Your task to perform on an android device: What is the recent news? Image 0: 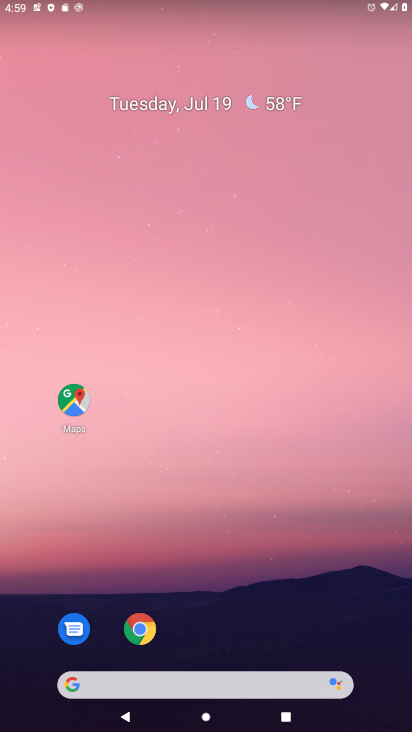
Step 0: drag from (226, 692) to (232, 266)
Your task to perform on an android device: What is the recent news? Image 1: 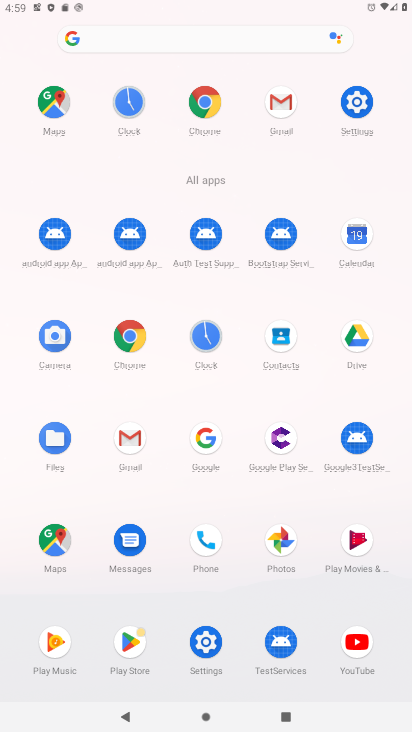
Step 1: click (124, 324)
Your task to perform on an android device: What is the recent news? Image 2: 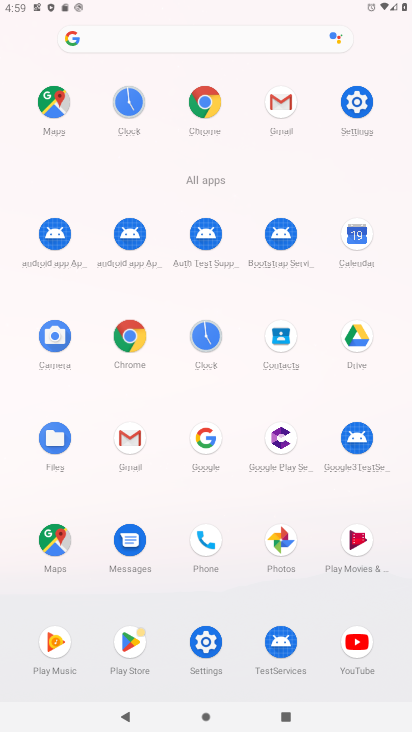
Step 2: click (125, 325)
Your task to perform on an android device: What is the recent news? Image 3: 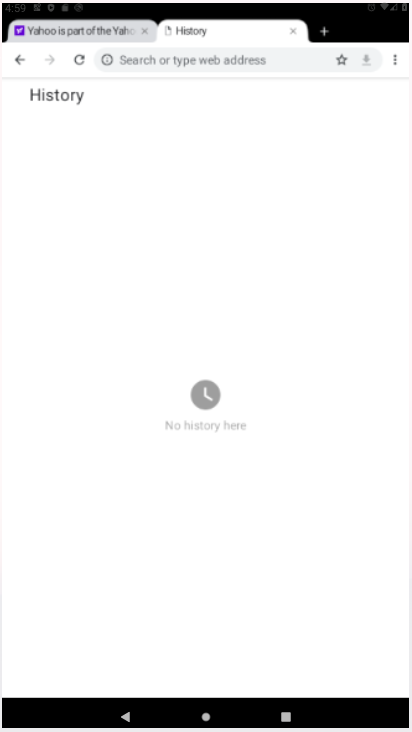
Step 3: click (128, 328)
Your task to perform on an android device: What is the recent news? Image 4: 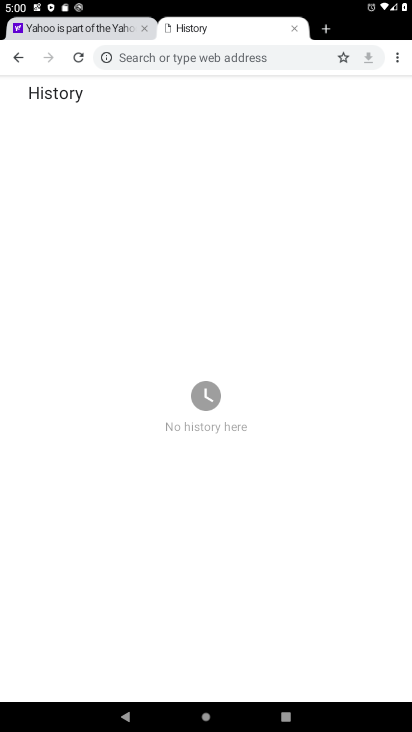
Step 4: click (10, 55)
Your task to perform on an android device: What is the recent news? Image 5: 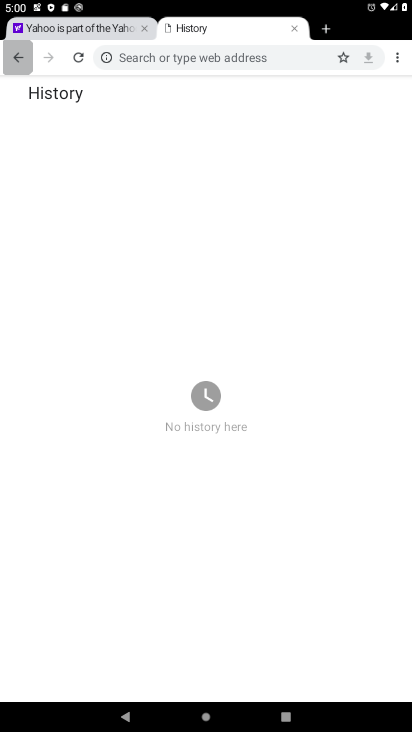
Step 5: click (14, 51)
Your task to perform on an android device: What is the recent news? Image 6: 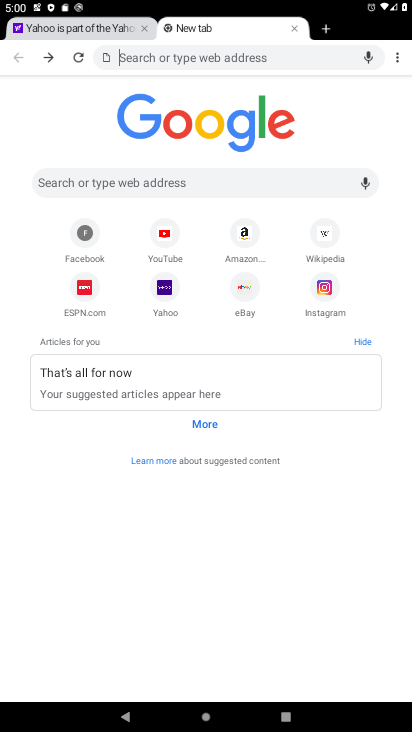
Step 6: drag from (395, 63) to (282, 46)
Your task to perform on an android device: What is the recent news? Image 7: 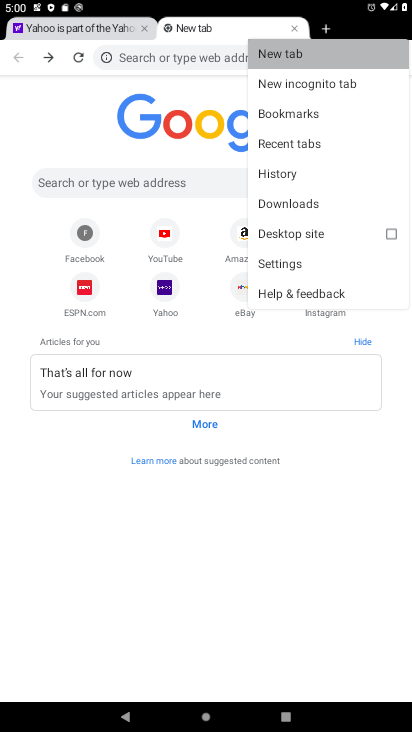
Step 7: click (282, 46)
Your task to perform on an android device: What is the recent news? Image 8: 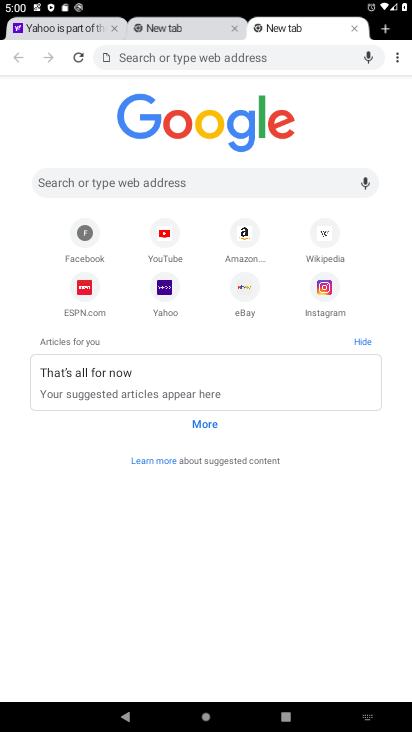
Step 8: task complete